Your task to perform on an android device: Open settings on Google Maps Image 0: 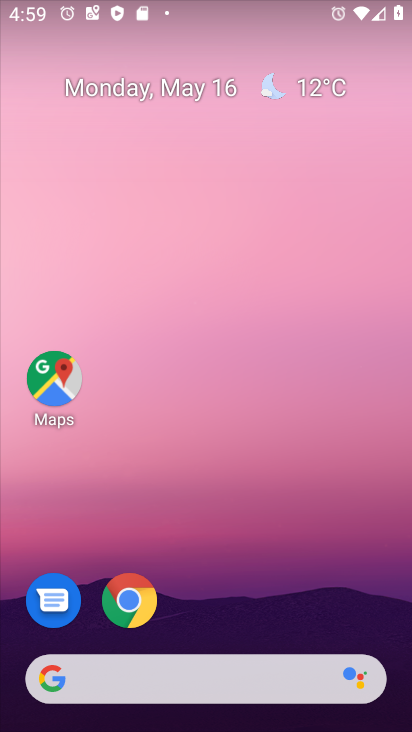
Step 0: drag from (189, 654) to (260, 267)
Your task to perform on an android device: Open settings on Google Maps Image 1: 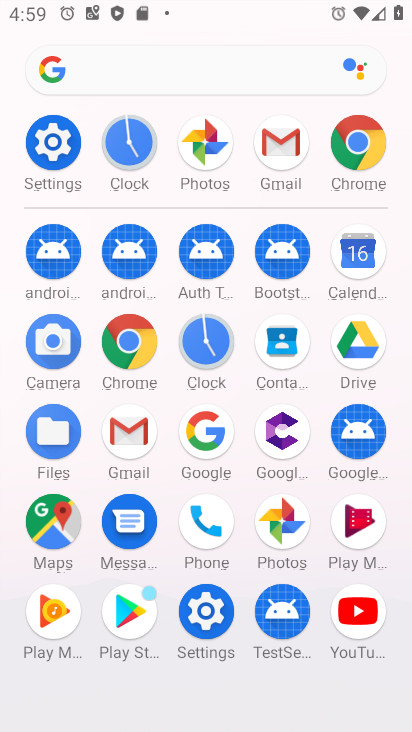
Step 1: click (58, 514)
Your task to perform on an android device: Open settings on Google Maps Image 2: 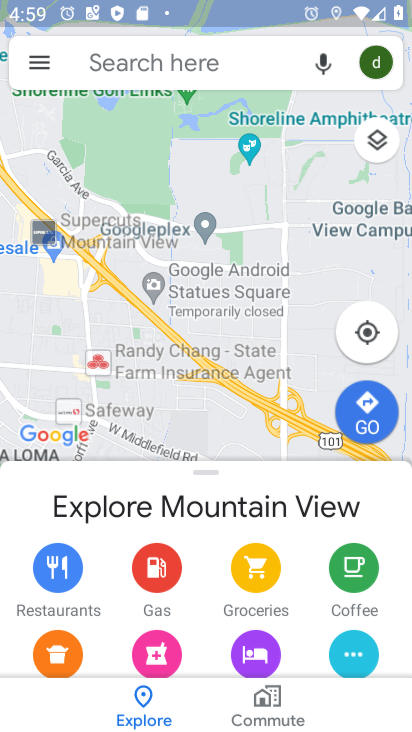
Step 2: click (42, 58)
Your task to perform on an android device: Open settings on Google Maps Image 3: 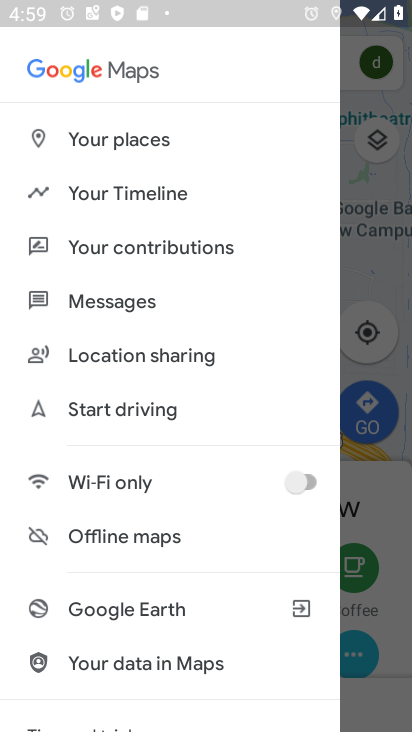
Step 3: drag from (169, 446) to (182, 295)
Your task to perform on an android device: Open settings on Google Maps Image 4: 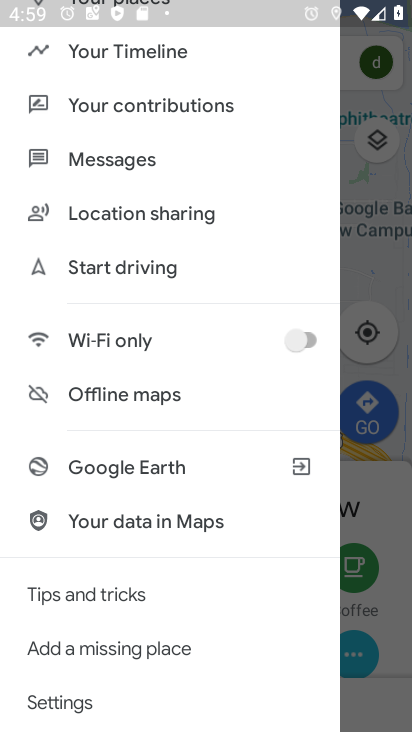
Step 4: click (92, 695)
Your task to perform on an android device: Open settings on Google Maps Image 5: 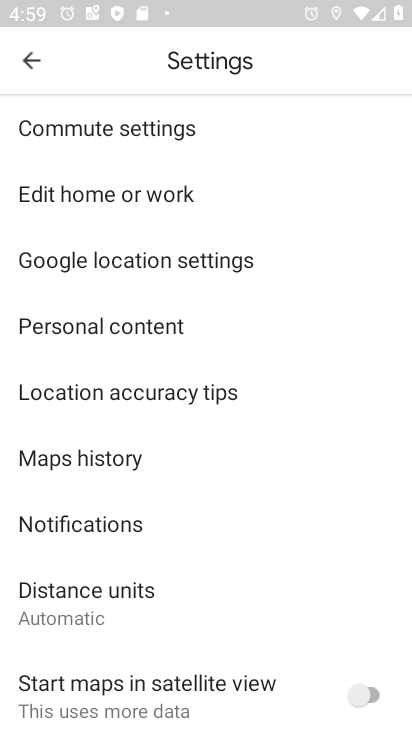
Step 5: task complete